Your task to perform on an android device: check the backup settings in the google photos Image 0: 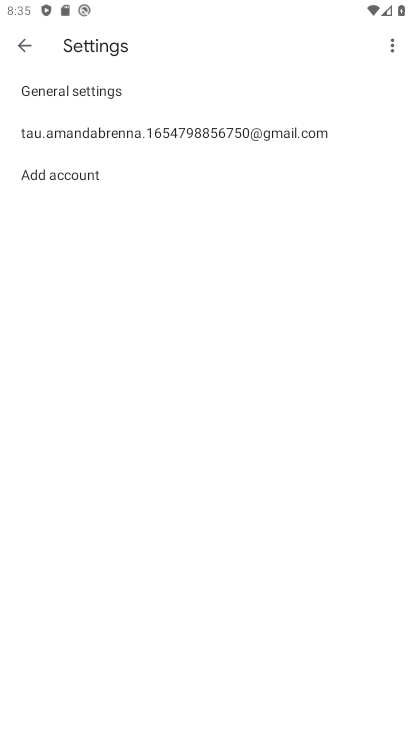
Step 0: press home button
Your task to perform on an android device: check the backup settings in the google photos Image 1: 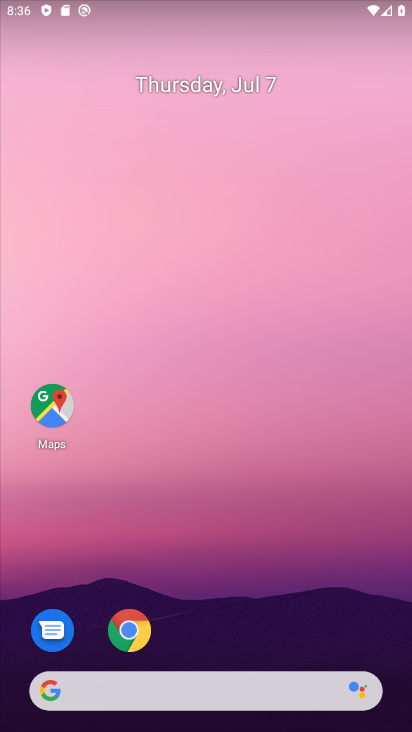
Step 1: drag from (194, 644) to (168, 242)
Your task to perform on an android device: check the backup settings in the google photos Image 2: 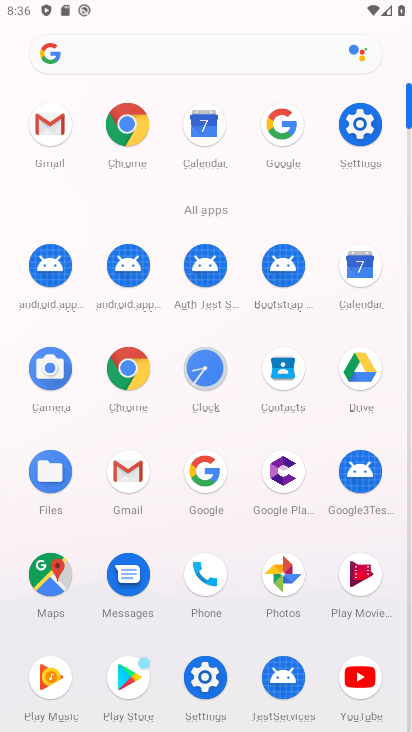
Step 2: click (274, 578)
Your task to perform on an android device: check the backup settings in the google photos Image 3: 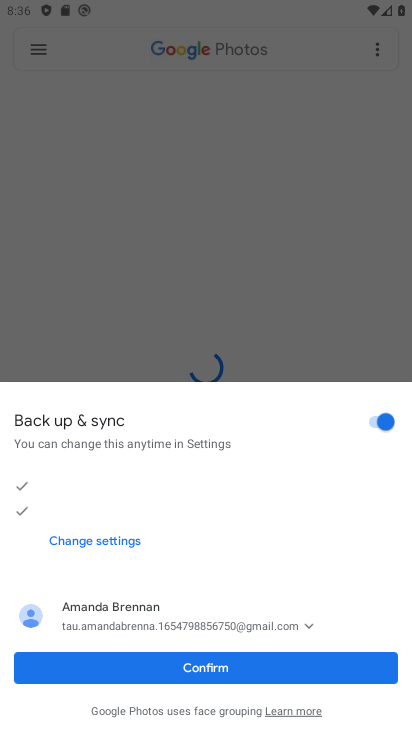
Step 3: click (217, 666)
Your task to perform on an android device: check the backup settings in the google photos Image 4: 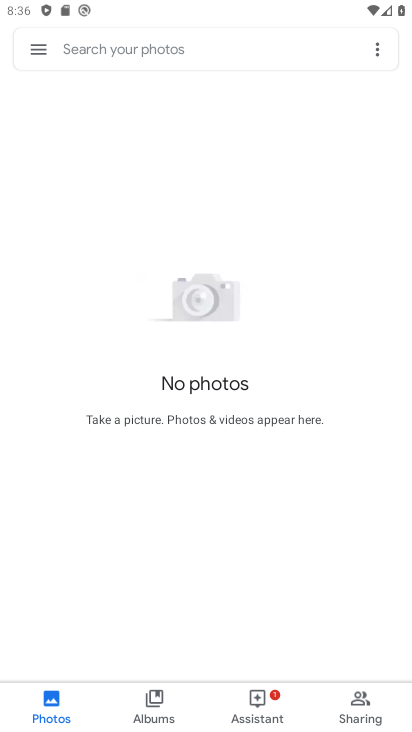
Step 4: click (26, 42)
Your task to perform on an android device: check the backup settings in the google photos Image 5: 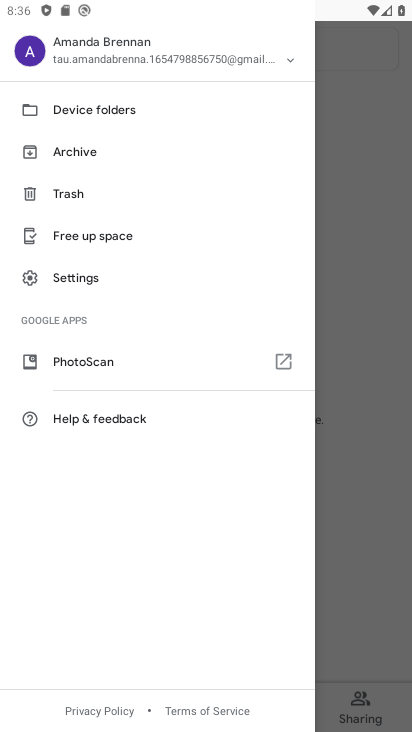
Step 5: click (83, 279)
Your task to perform on an android device: check the backup settings in the google photos Image 6: 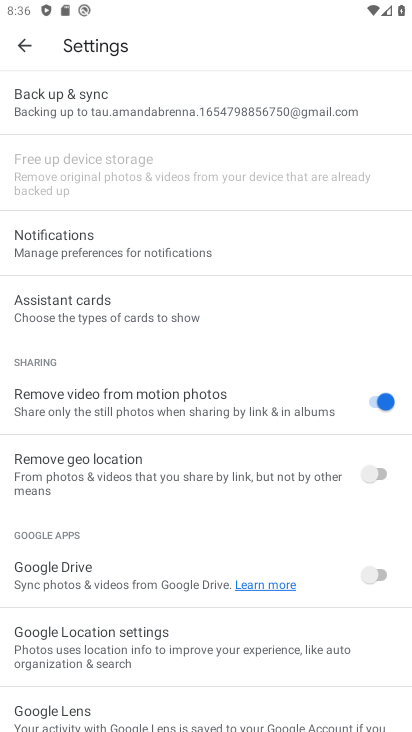
Step 6: click (101, 109)
Your task to perform on an android device: check the backup settings in the google photos Image 7: 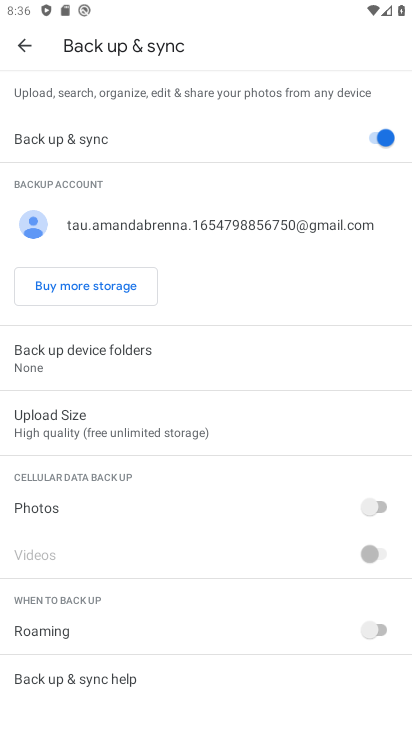
Step 7: task complete